Your task to perform on an android device: Open Google Chrome and open the bookmarks view Image 0: 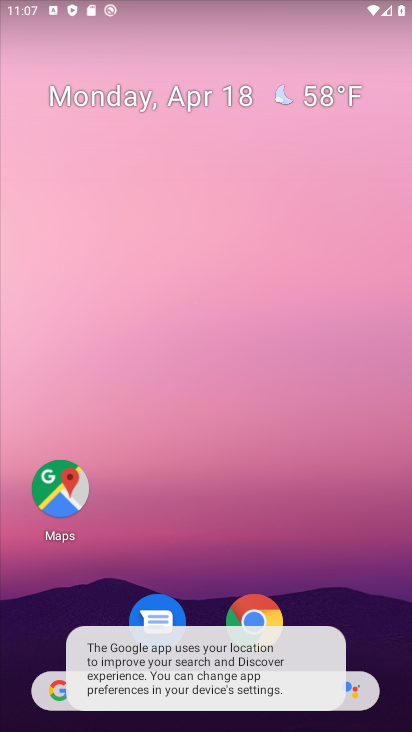
Step 0: click (254, 619)
Your task to perform on an android device: Open Google Chrome and open the bookmarks view Image 1: 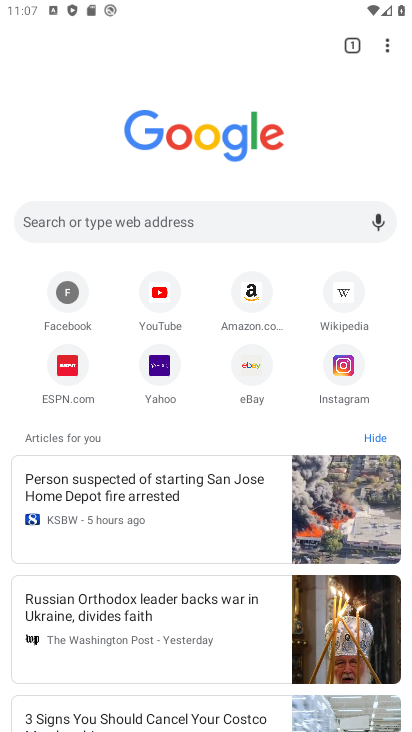
Step 1: click (387, 49)
Your task to perform on an android device: Open Google Chrome and open the bookmarks view Image 2: 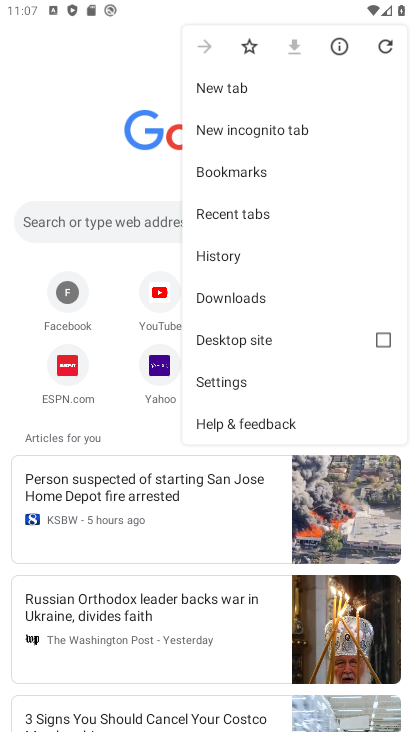
Step 2: click (239, 173)
Your task to perform on an android device: Open Google Chrome and open the bookmarks view Image 3: 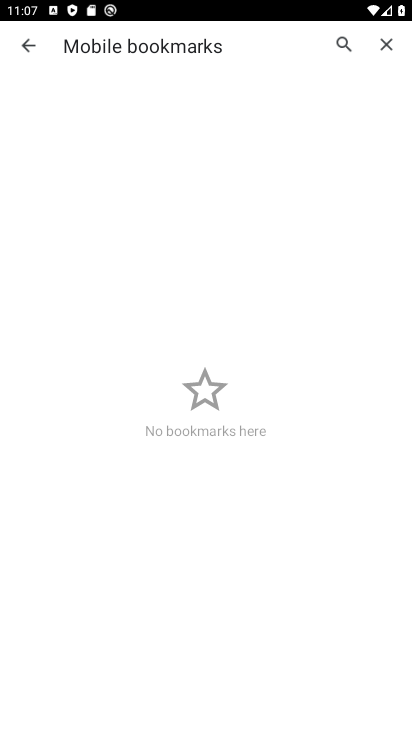
Step 3: task complete